Your task to perform on an android device: When is my next appointment? Image 0: 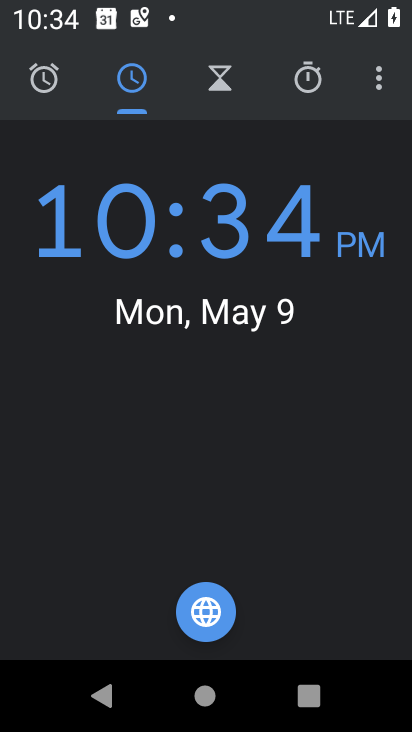
Step 0: press back button
Your task to perform on an android device: When is my next appointment? Image 1: 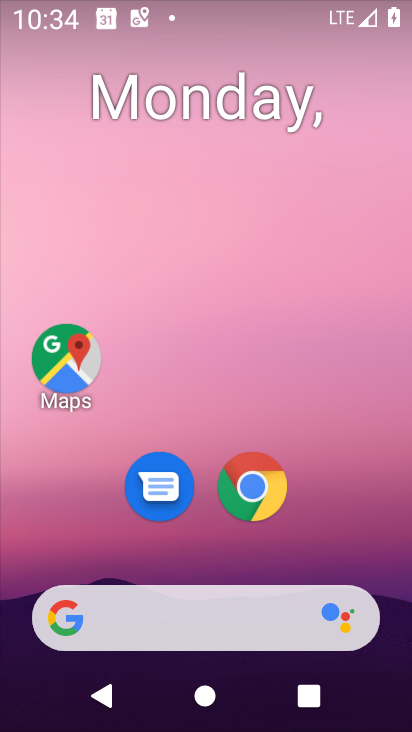
Step 1: drag from (334, 489) to (270, 5)
Your task to perform on an android device: When is my next appointment? Image 2: 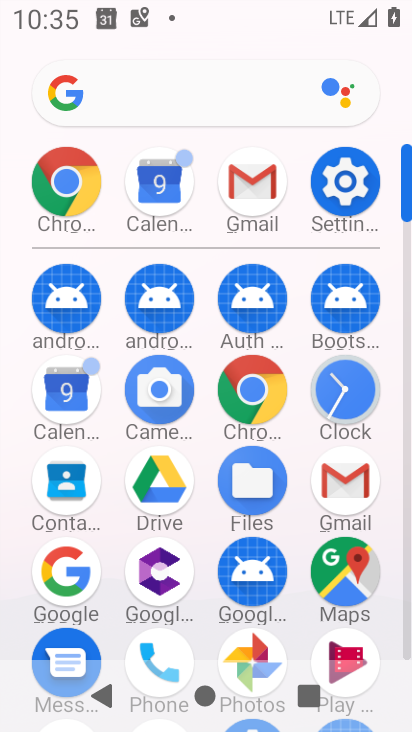
Step 2: drag from (4, 495) to (4, 209)
Your task to perform on an android device: When is my next appointment? Image 3: 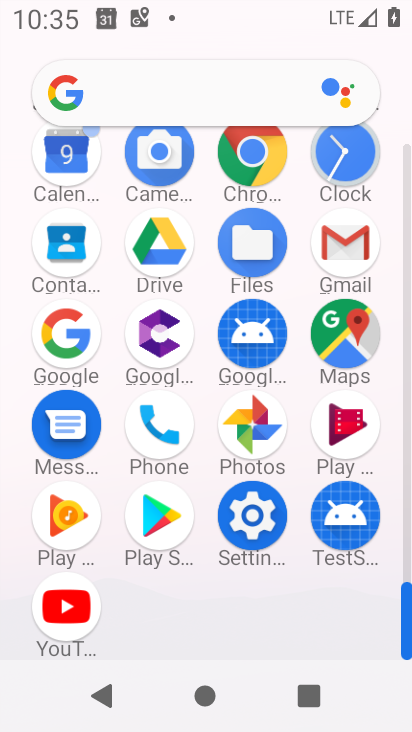
Step 3: drag from (4, 183) to (22, 480)
Your task to perform on an android device: When is my next appointment? Image 4: 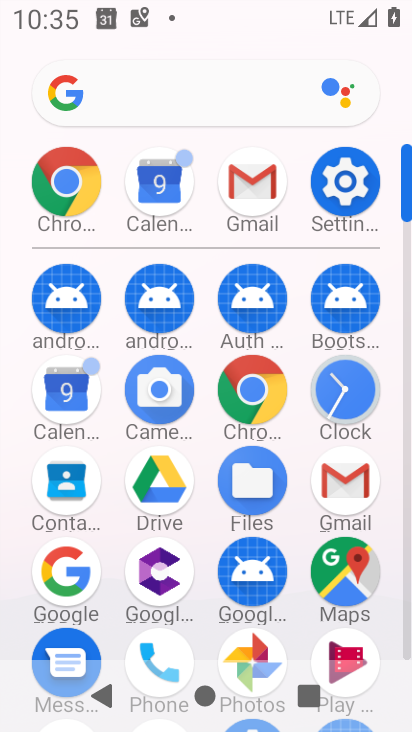
Step 4: click (161, 179)
Your task to perform on an android device: When is my next appointment? Image 5: 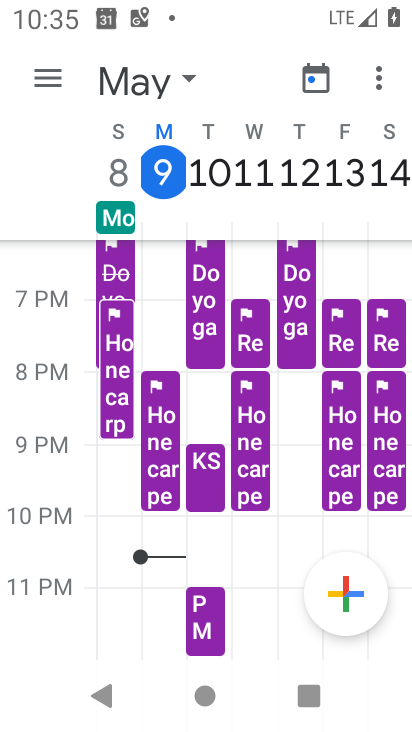
Step 5: click (60, 77)
Your task to perform on an android device: When is my next appointment? Image 6: 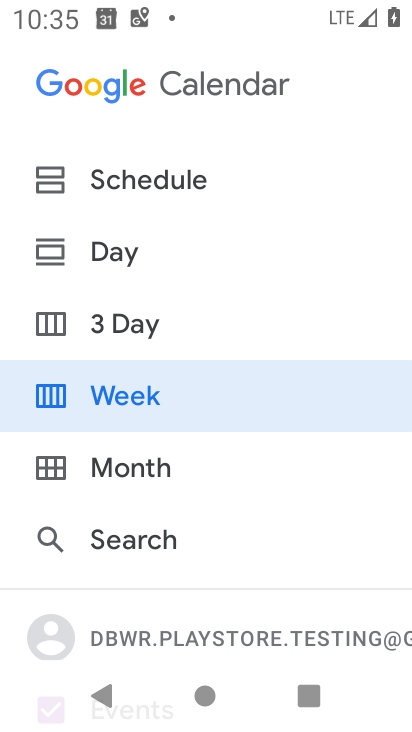
Step 6: click (136, 176)
Your task to perform on an android device: When is my next appointment? Image 7: 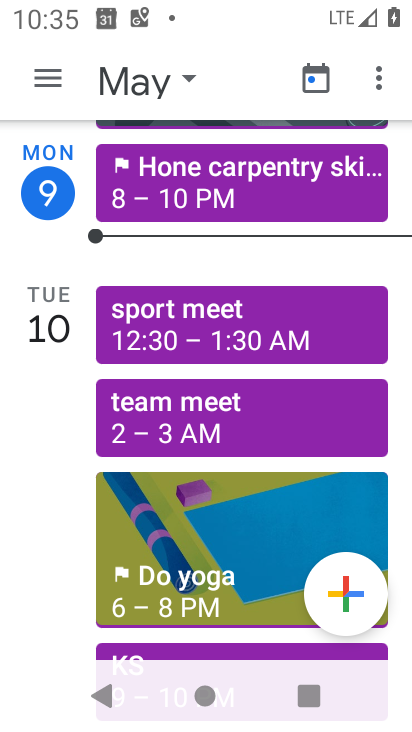
Step 7: click (58, 71)
Your task to perform on an android device: When is my next appointment? Image 8: 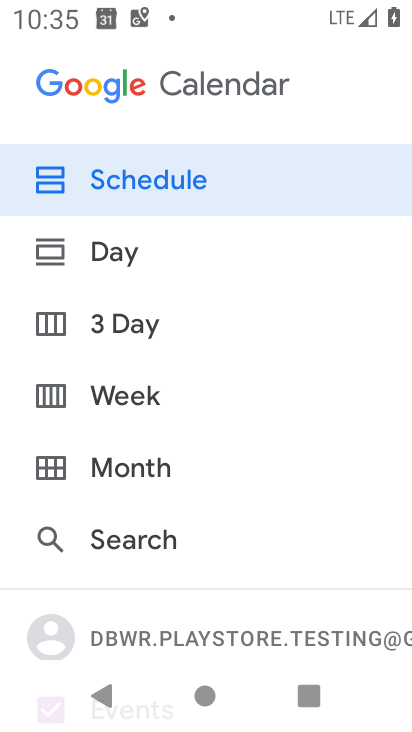
Step 8: drag from (273, 587) to (267, 162)
Your task to perform on an android device: When is my next appointment? Image 9: 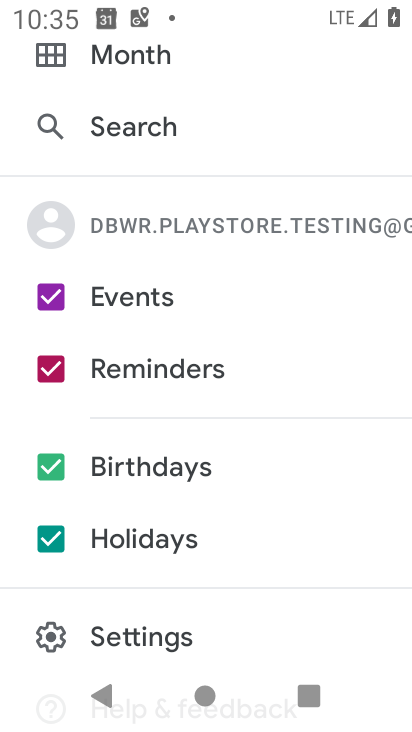
Step 9: click (43, 471)
Your task to perform on an android device: When is my next appointment? Image 10: 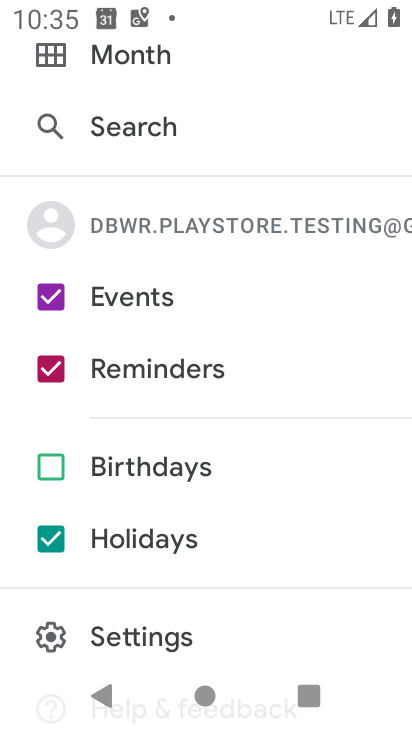
Step 10: click (50, 546)
Your task to perform on an android device: When is my next appointment? Image 11: 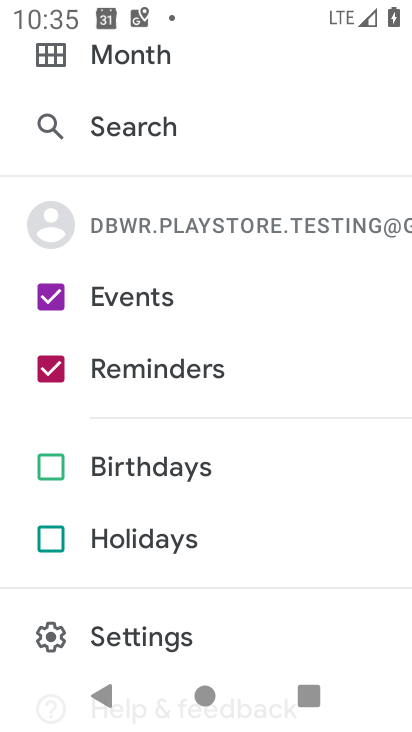
Step 11: drag from (238, 111) to (290, 530)
Your task to perform on an android device: When is my next appointment? Image 12: 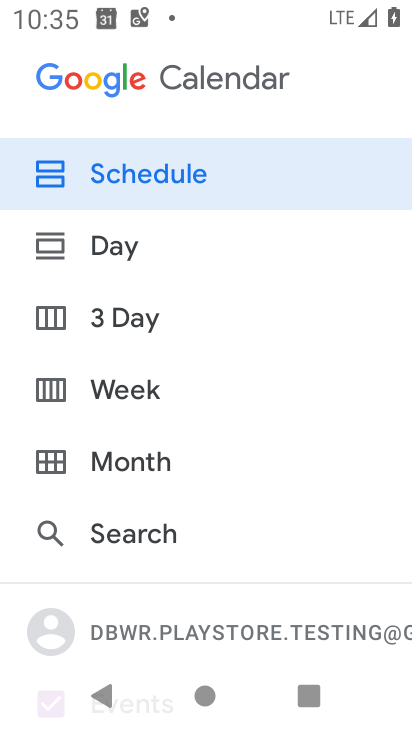
Step 12: click (210, 169)
Your task to perform on an android device: When is my next appointment? Image 13: 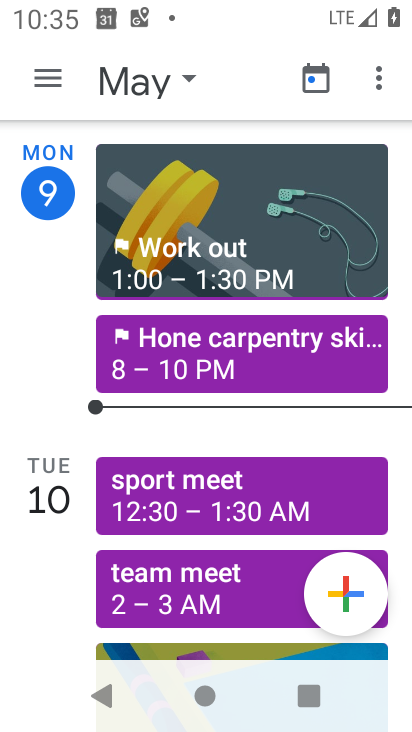
Step 13: task complete